Your task to perform on an android device: Open Yahoo.com Image 0: 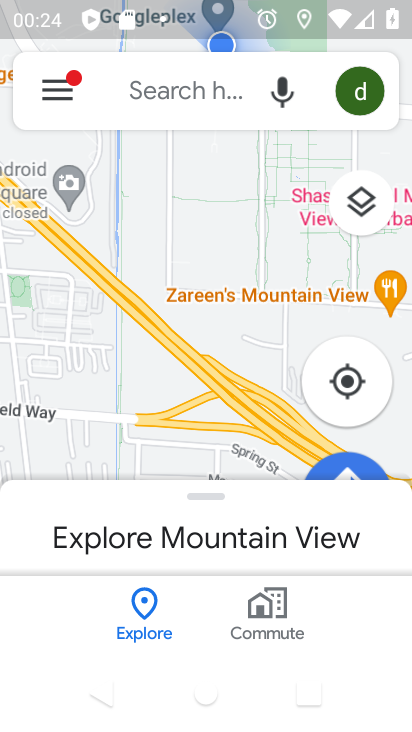
Step 0: press home button
Your task to perform on an android device: Open Yahoo.com Image 1: 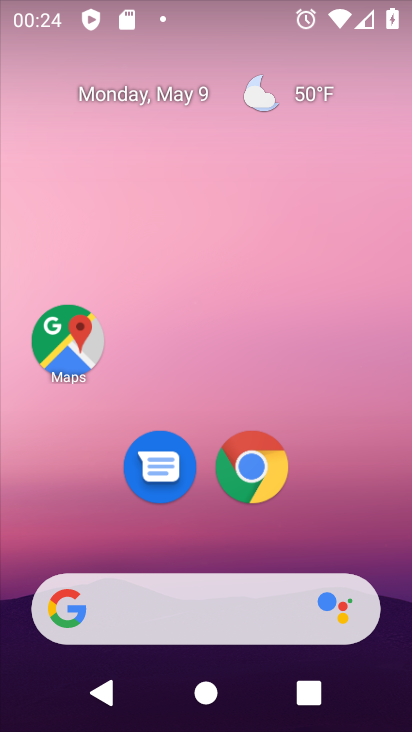
Step 1: press home button
Your task to perform on an android device: Open Yahoo.com Image 2: 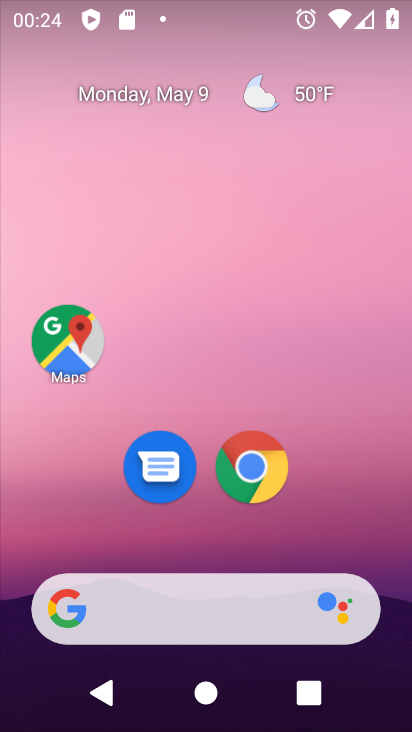
Step 2: click (249, 459)
Your task to perform on an android device: Open Yahoo.com Image 3: 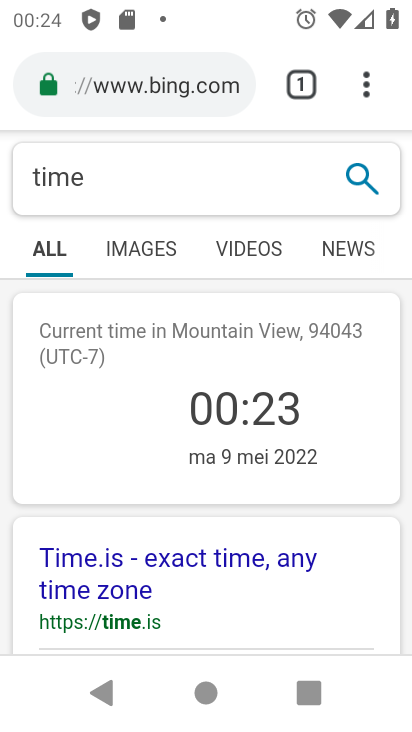
Step 3: click (300, 87)
Your task to perform on an android device: Open Yahoo.com Image 4: 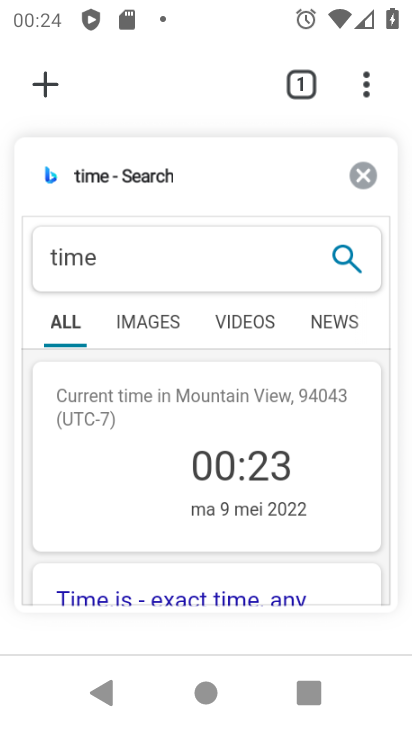
Step 4: click (358, 172)
Your task to perform on an android device: Open Yahoo.com Image 5: 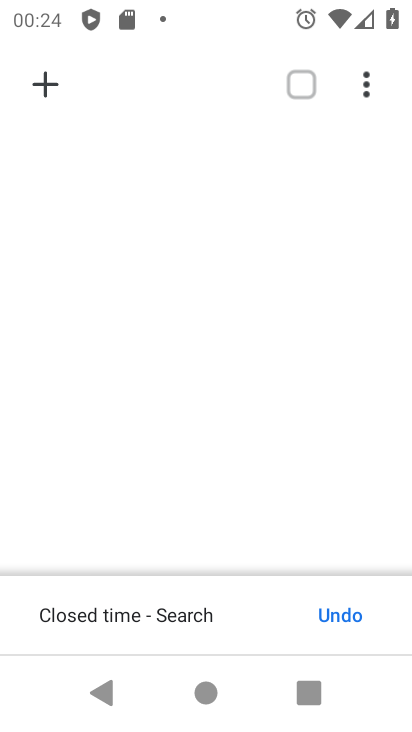
Step 5: click (51, 85)
Your task to perform on an android device: Open Yahoo.com Image 6: 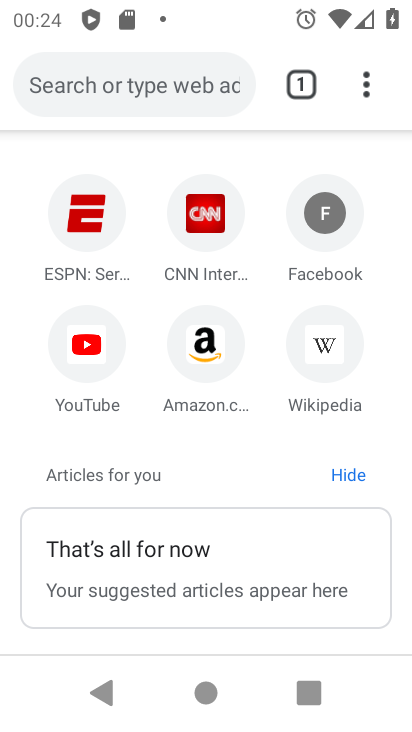
Step 6: click (164, 72)
Your task to perform on an android device: Open Yahoo.com Image 7: 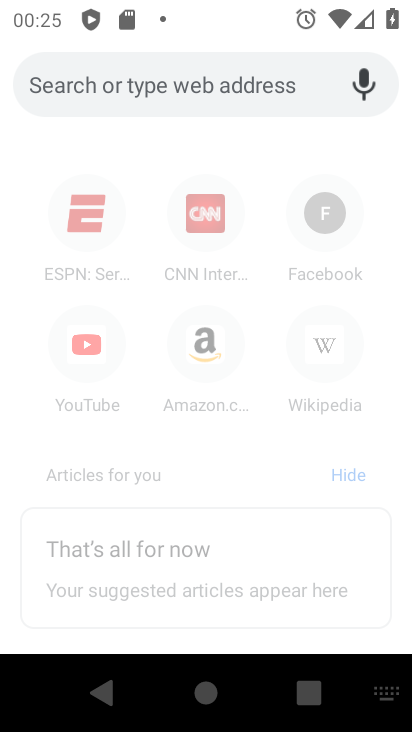
Step 7: type "yahoo.com"
Your task to perform on an android device: Open Yahoo.com Image 8: 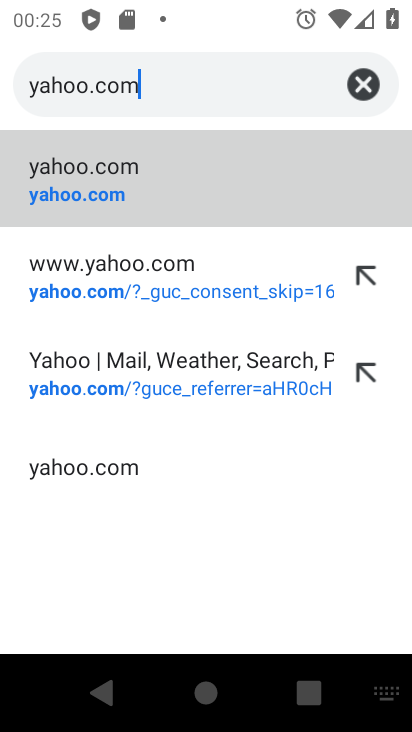
Step 8: click (115, 178)
Your task to perform on an android device: Open Yahoo.com Image 9: 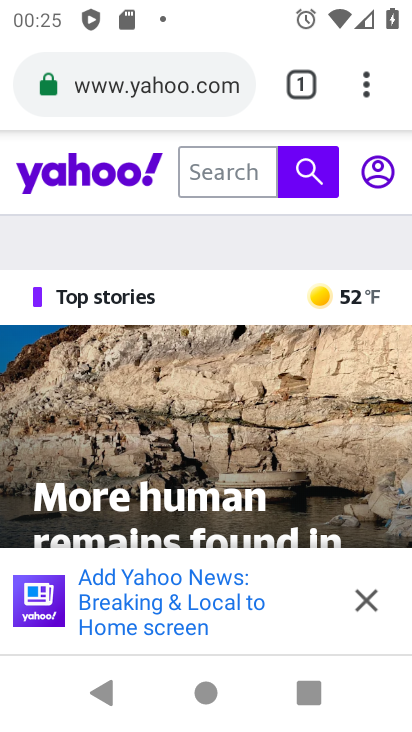
Step 9: click (361, 607)
Your task to perform on an android device: Open Yahoo.com Image 10: 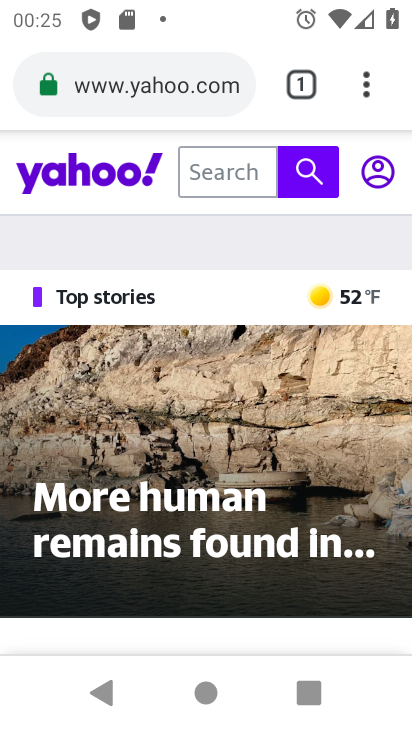
Step 10: task complete